Your task to perform on an android device: Open Chrome and go to settings Image 0: 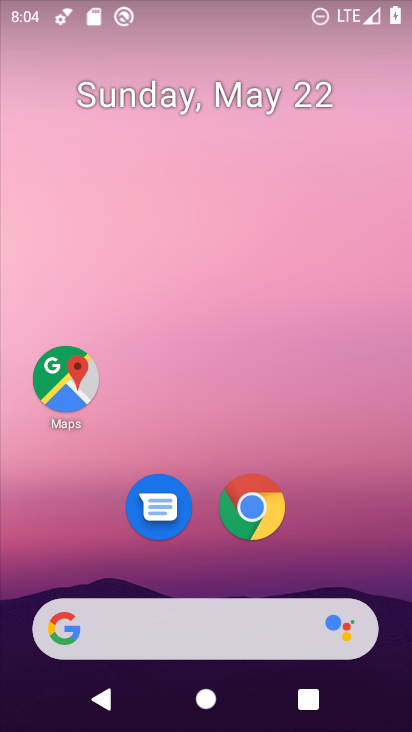
Step 0: click (264, 512)
Your task to perform on an android device: Open Chrome and go to settings Image 1: 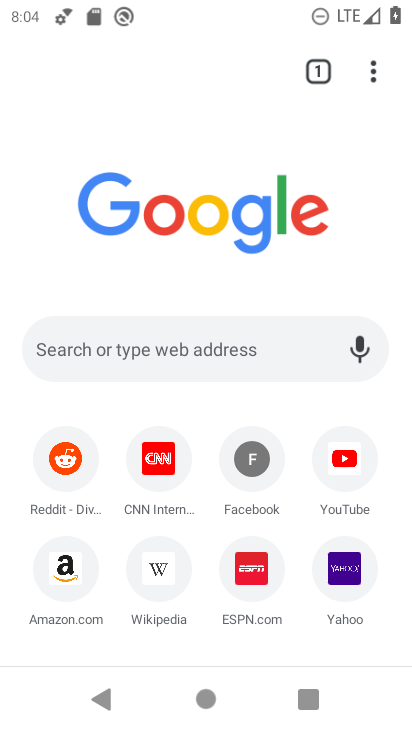
Step 1: click (368, 71)
Your task to perform on an android device: Open Chrome and go to settings Image 2: 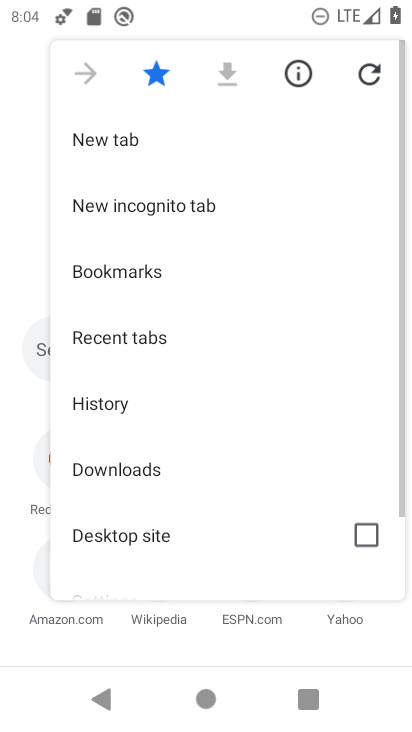
Step 2: drag from (205, 438) to (202, 26)
Your task to perform on an android device: Open Chrome and go to settings Image 3: 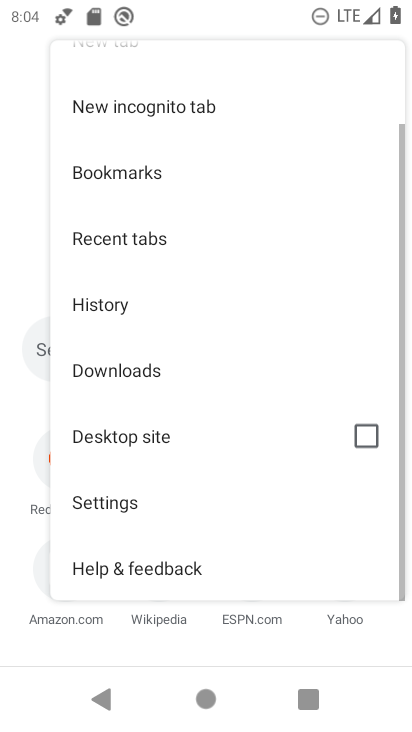
Step 3: click (125, 504)
Your task to perform on an android device: Open Chrome and go to settings Image 4: 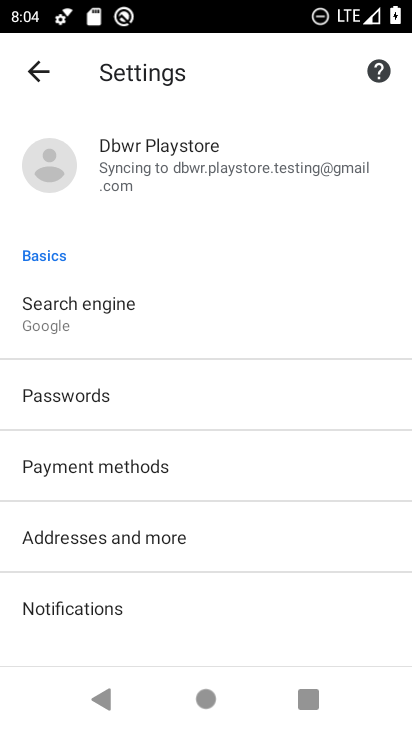
Step 4: task complete